Your task to perform on an android device: What's on my calendar tomorrow? Image 0: 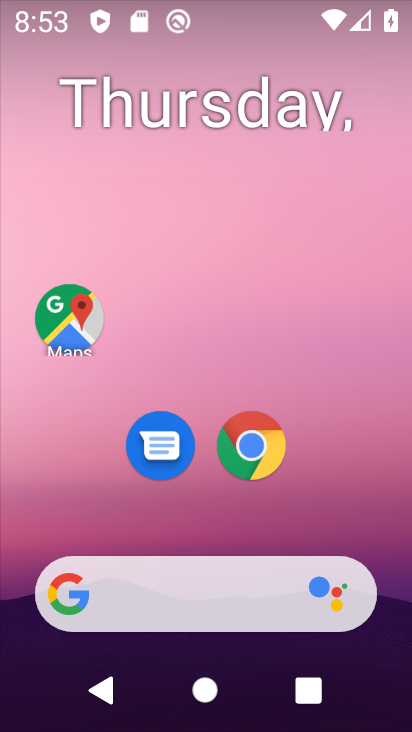
Step 0: press home button
Your task to perform on an android device: What's on my calendar tomorrow? Image 1: 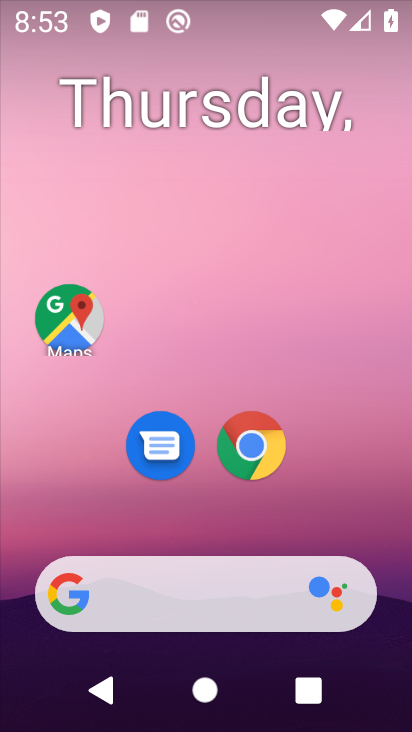
Step 1: drag from (16, 571) to (248, 103)
Your task to perform on an android device: What's on my calendar tomorrow? Image 2: 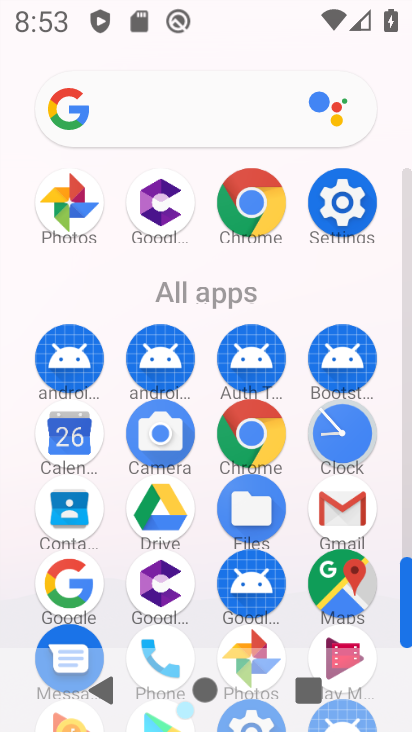
Step 2: click (78, 433)
Your task to perform on an android device: What's on my calendar tomorrow? Image 3: 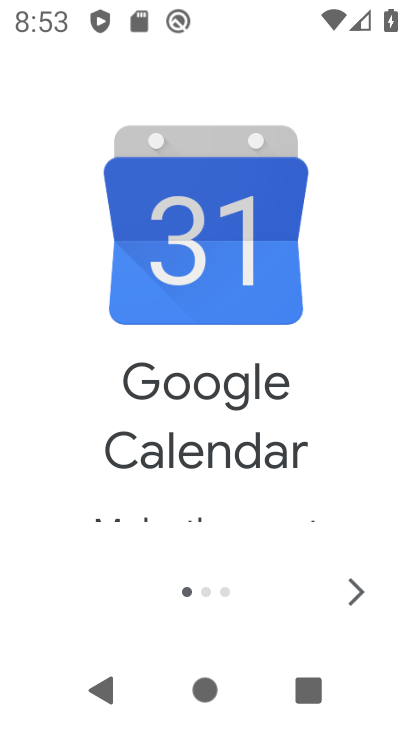
Step 3: click (360, 595)
Your task to perform on an android device: What's on my calendar tomorrow? Image 4: 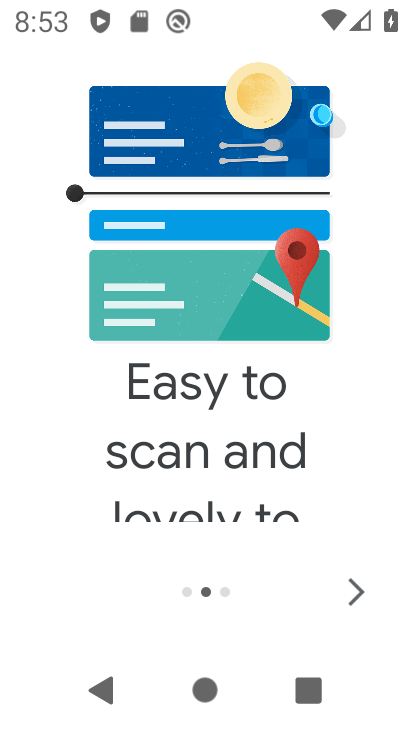
Step 4: click (360, 595)
Your task to perform on an android device: What's on my calendar tomorrow? Image 5: 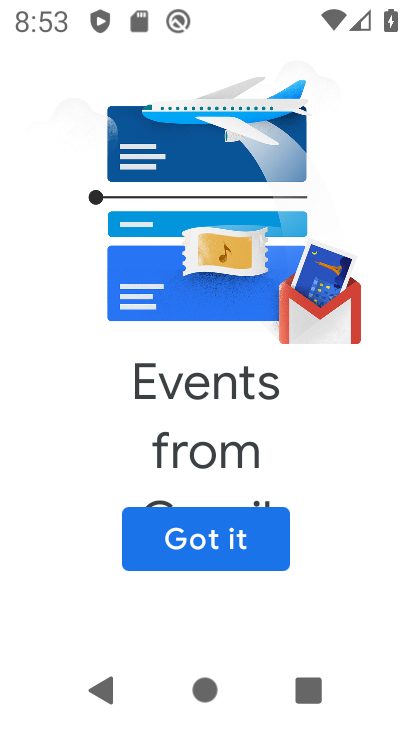
Step 5: click (259, 553)
Your task to perform on an android device: What's on my calendar tomorrow? Image 6: 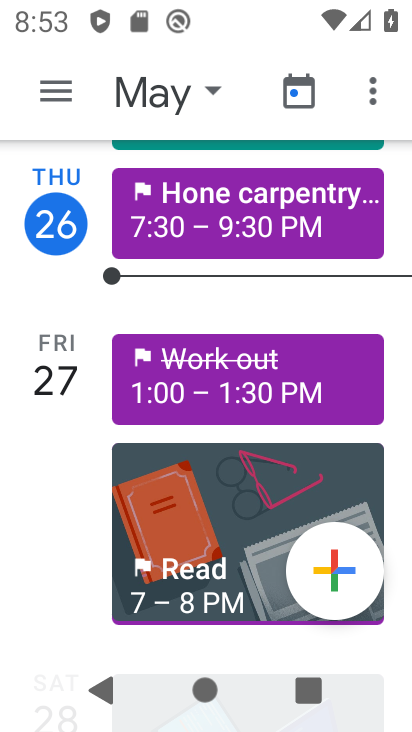
Step 6: click (140, 81)
Your task to perform on an android device: What's on my calendar tomorrow? Image 7: 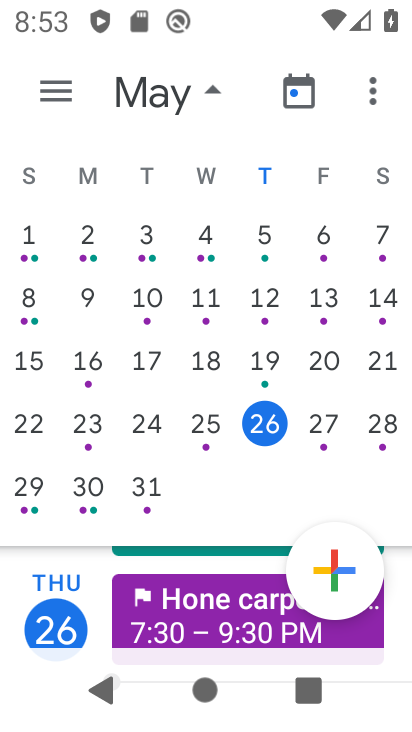
Step 7: click (319, 418)
Your task to perform on an android device: What's on my calendar tomorrow? Image 8: 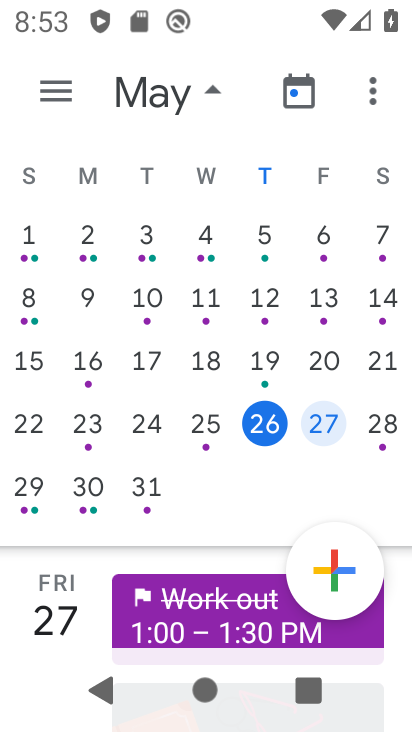
Step 8: task complete